Your task to perform on an android device: When is my next meeting? Image 0: 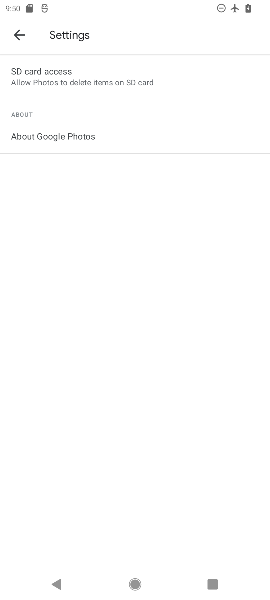
Step 0: press home button
Your task to perform on an android device: When is my next meeting? Image 1: 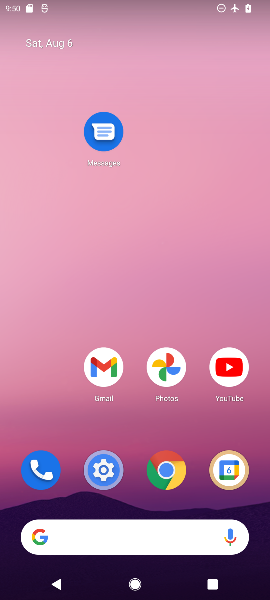
Step 1: drag from (160, 487) to (183, 47)
Your task to perform on an android device: When is my next meeting? Image 2: 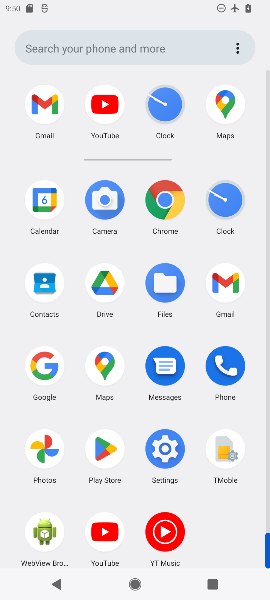
Step 2: click (47, 202)
Your task to perform on an android device: When is my next meeting? Image 3: 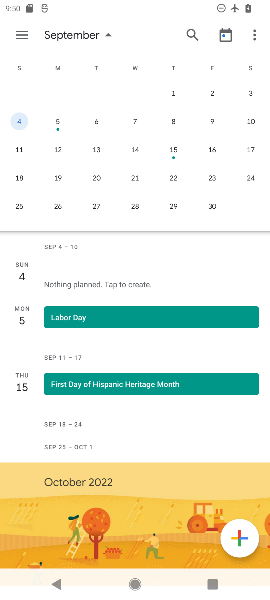
Step 3: drag from (51, 171) to (268, 167)
Your task to perform on an android device: When is my next meeting? Image 4: 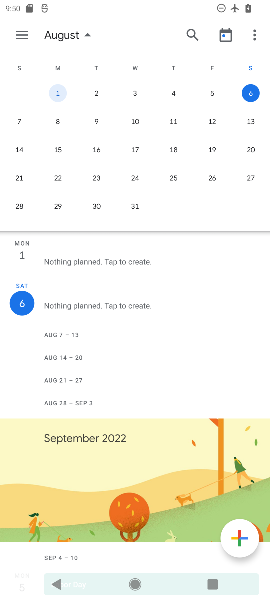
Step 4: click (250, 97)
Your task to perform on an android device: When is my next meeting? Image 5: 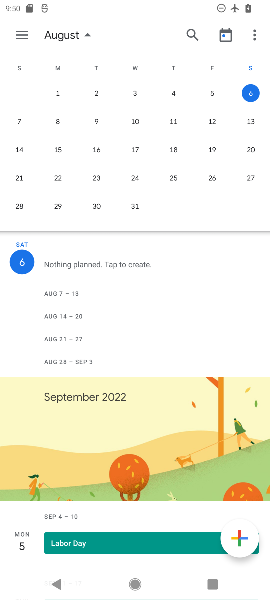
Step 5: click (21, 36)
Your task to perform on an android device: When is my next meeting? Image 6: 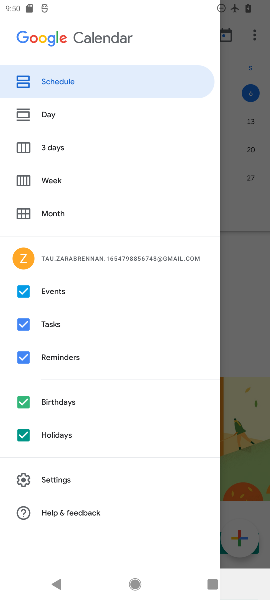
Step 6: click (32, 430)
Your task to perform on an android device: When is my next meeting? Image 7: 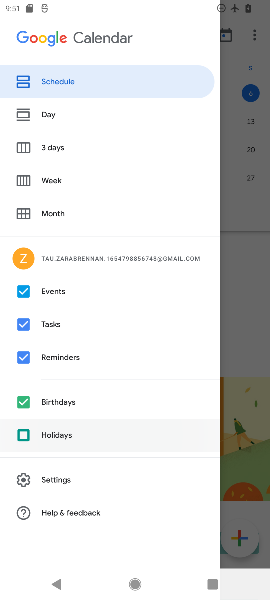
Step 7: click (25, 401)
Your task to perform on an android device: When is my next meeting? Image 8: 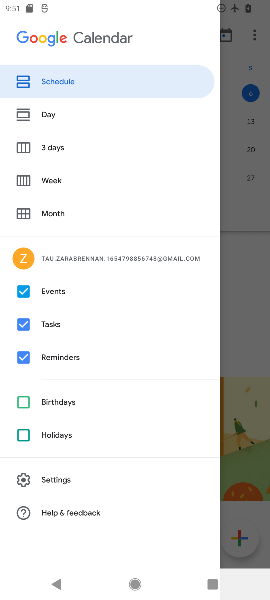
Step 8: click (258, 314)
Your task to perform on an android device: When is my next meeting? Image 9: 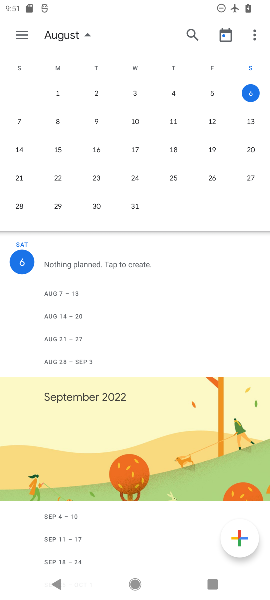
Step 9: task complete